Your task to perform on an android device: Add macbook pro 13 inch to the cart on amazon Image 0: 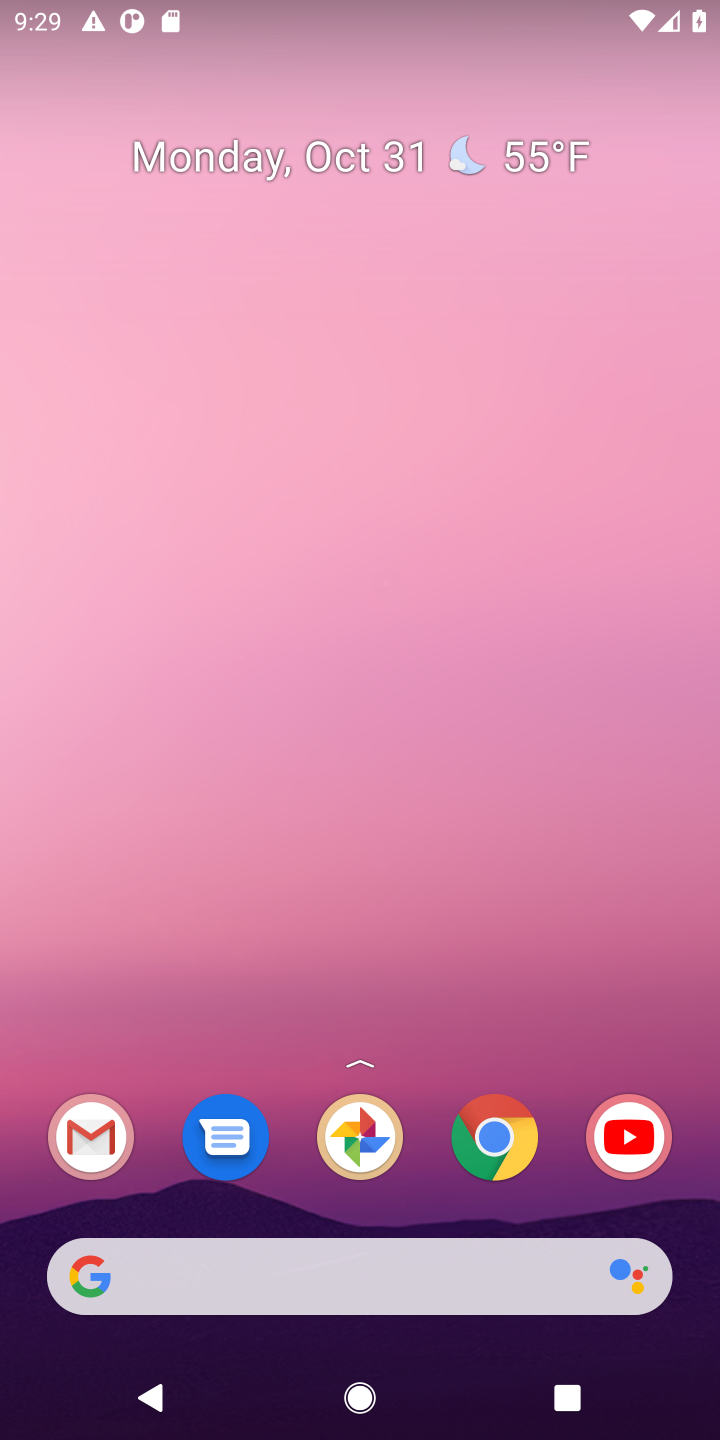
Step 0: click (521, 1139)
Your task to perform on an android device: Add macbook pro 13 inch to the cart on amazon Image 1: 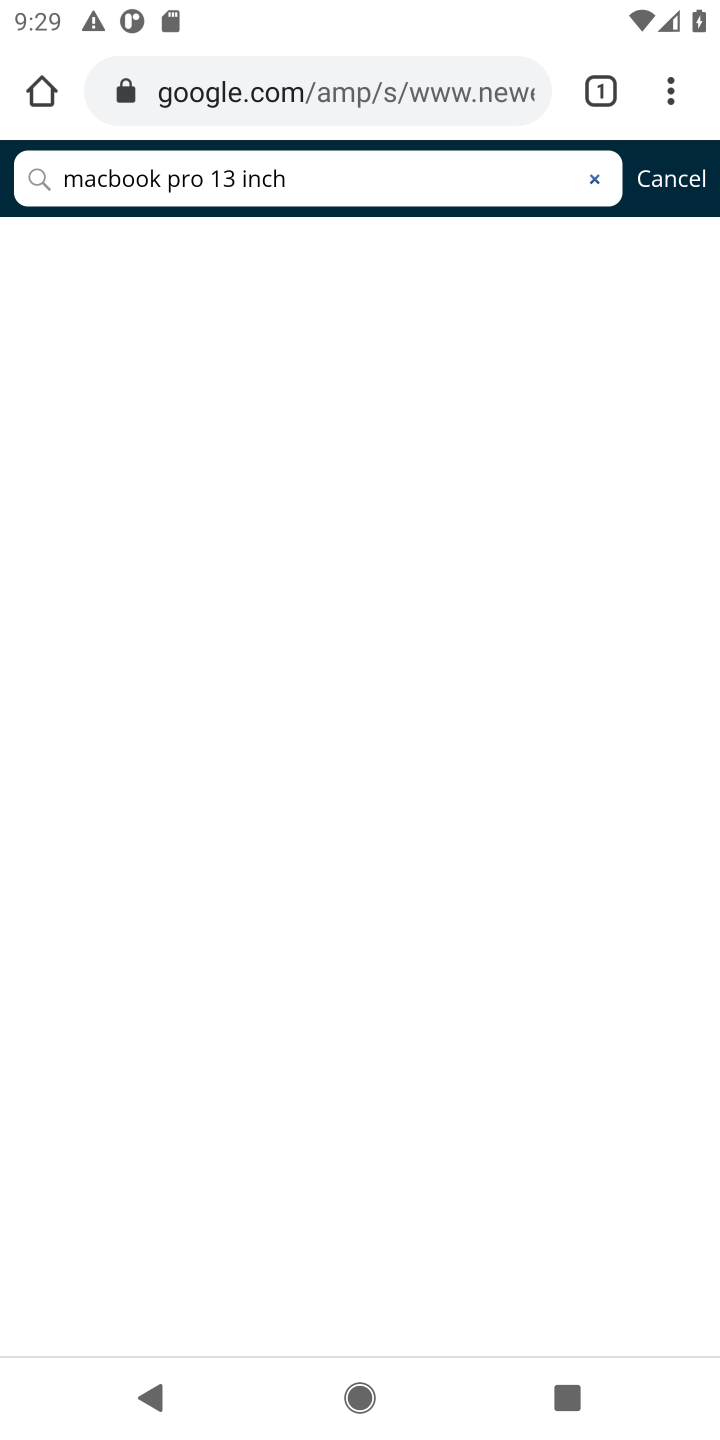
Step 1: click (308, 186)
Your task to perform on an android device: Add macbook pro 13 inch to the cart on amazon Image 2: 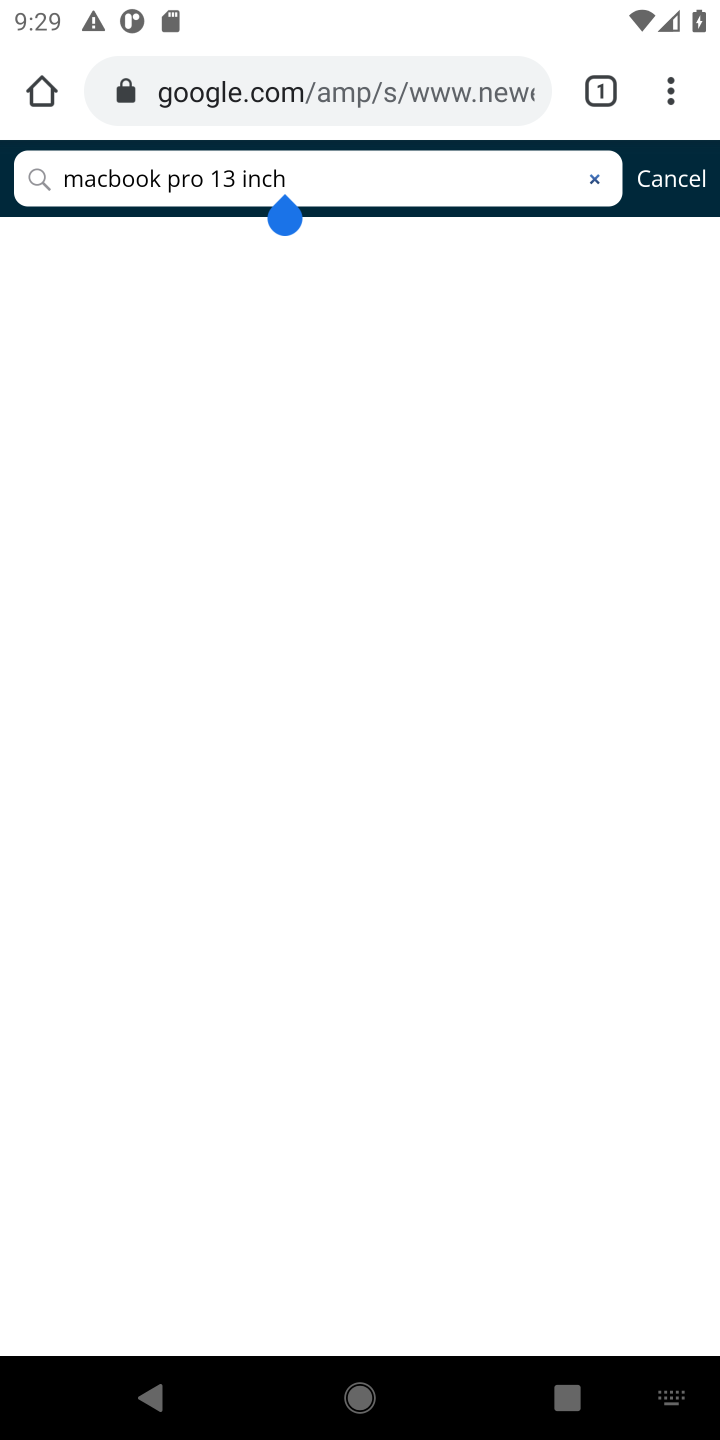
Step 2: click (317, 112)
Your task to perform on an android device: Add macbook pro 13 inch to the cart on amazon Image 3: 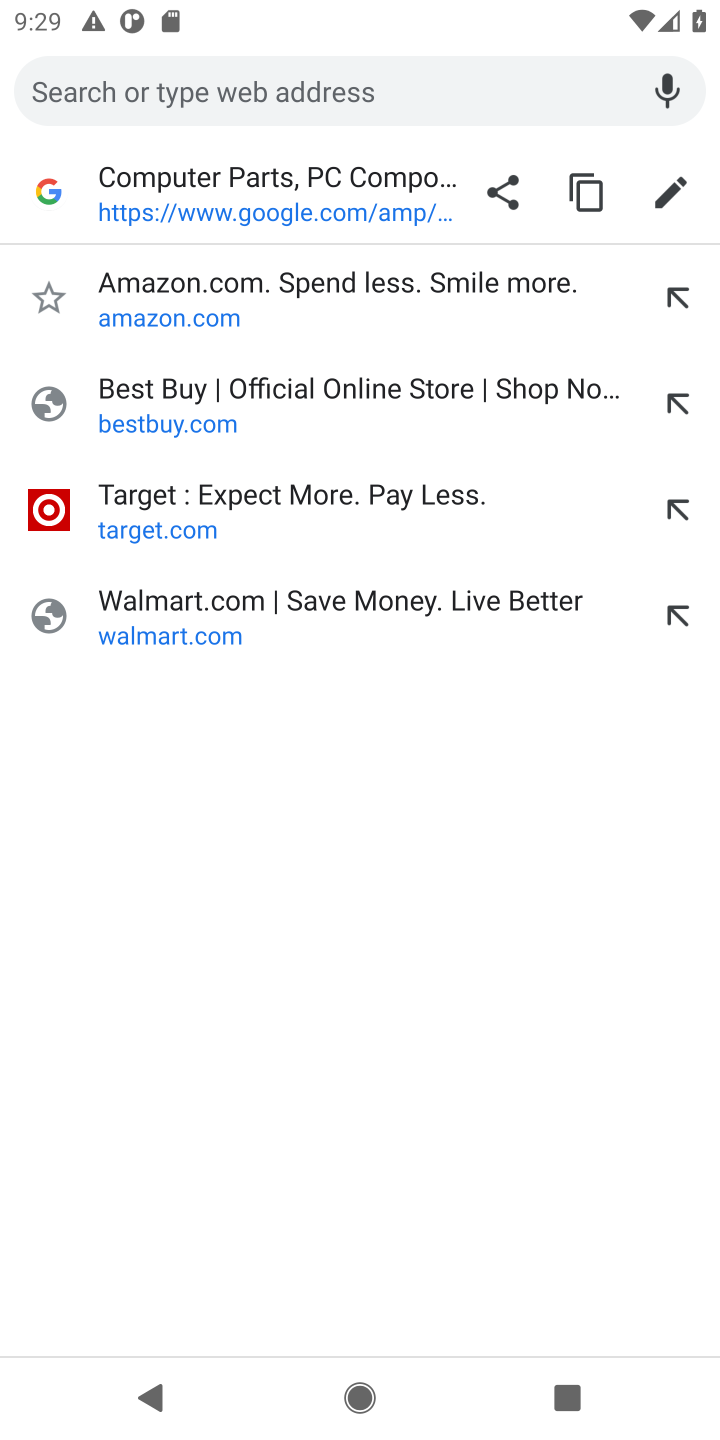
Step 3: click (232, 293)
Your task to perform on an android device: Add macbook pro 13 inch to the cart on amazon Image 4: 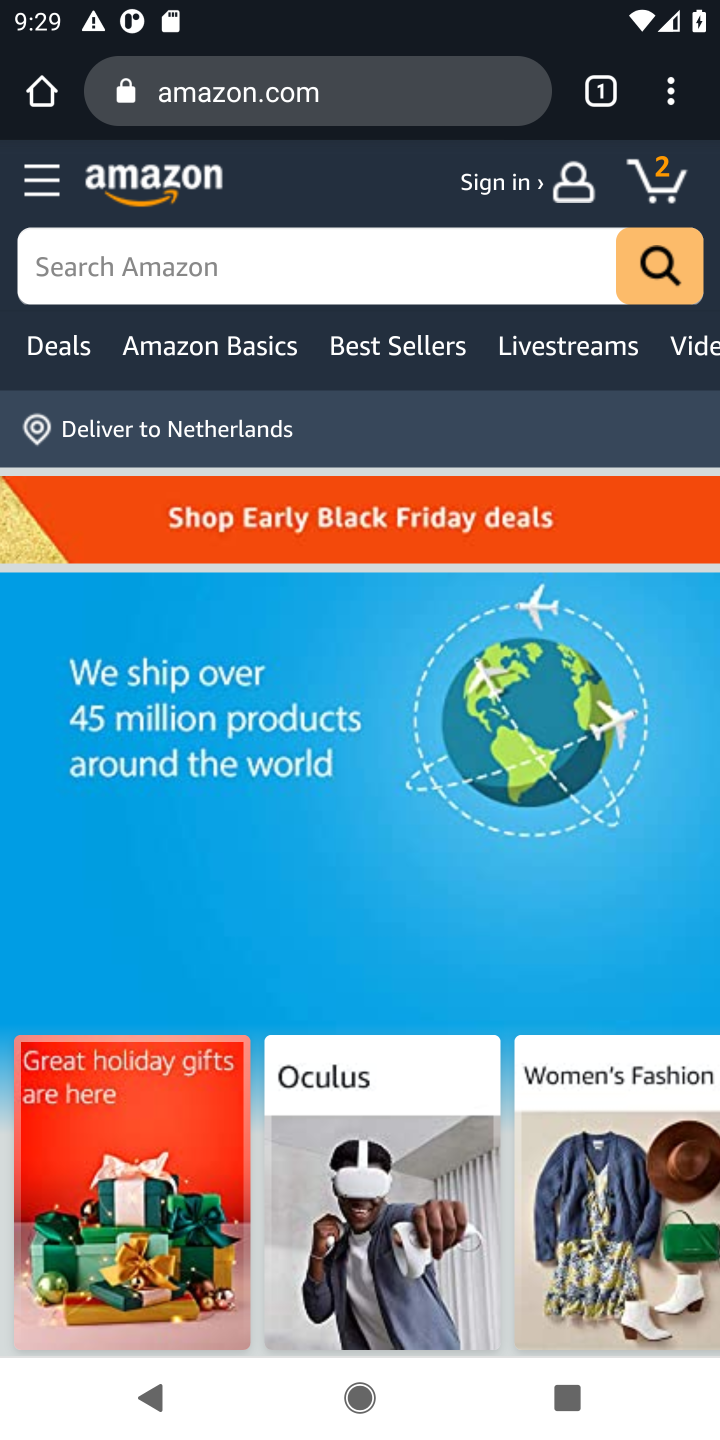
Step 4: click (232, 293)
Your task to perform on an android device: Add macbook pro 13 inch to the cart on amazon Image 5: 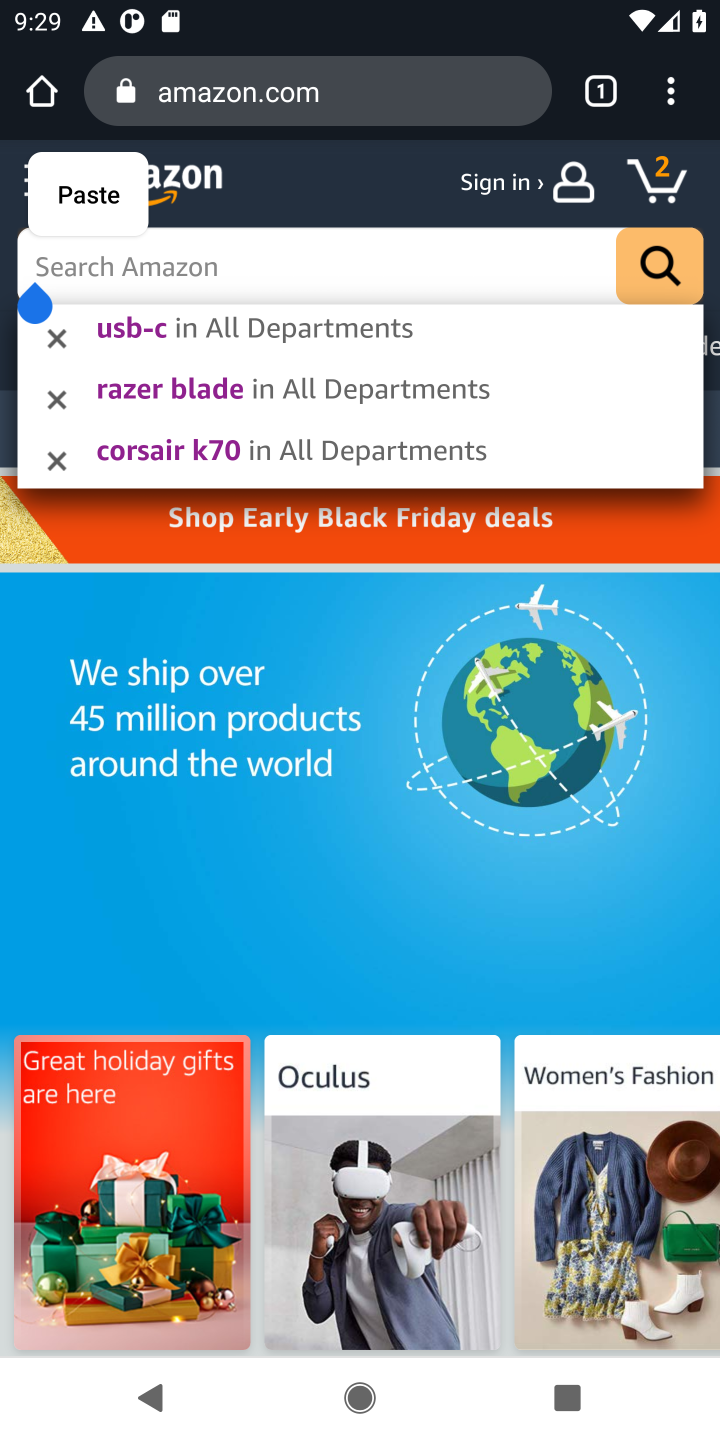
Step 5: type "macbook pro 13 inch"
Your task to perform on an android device: Add macbook pro 13 inch to the cart on amazon Image 6: 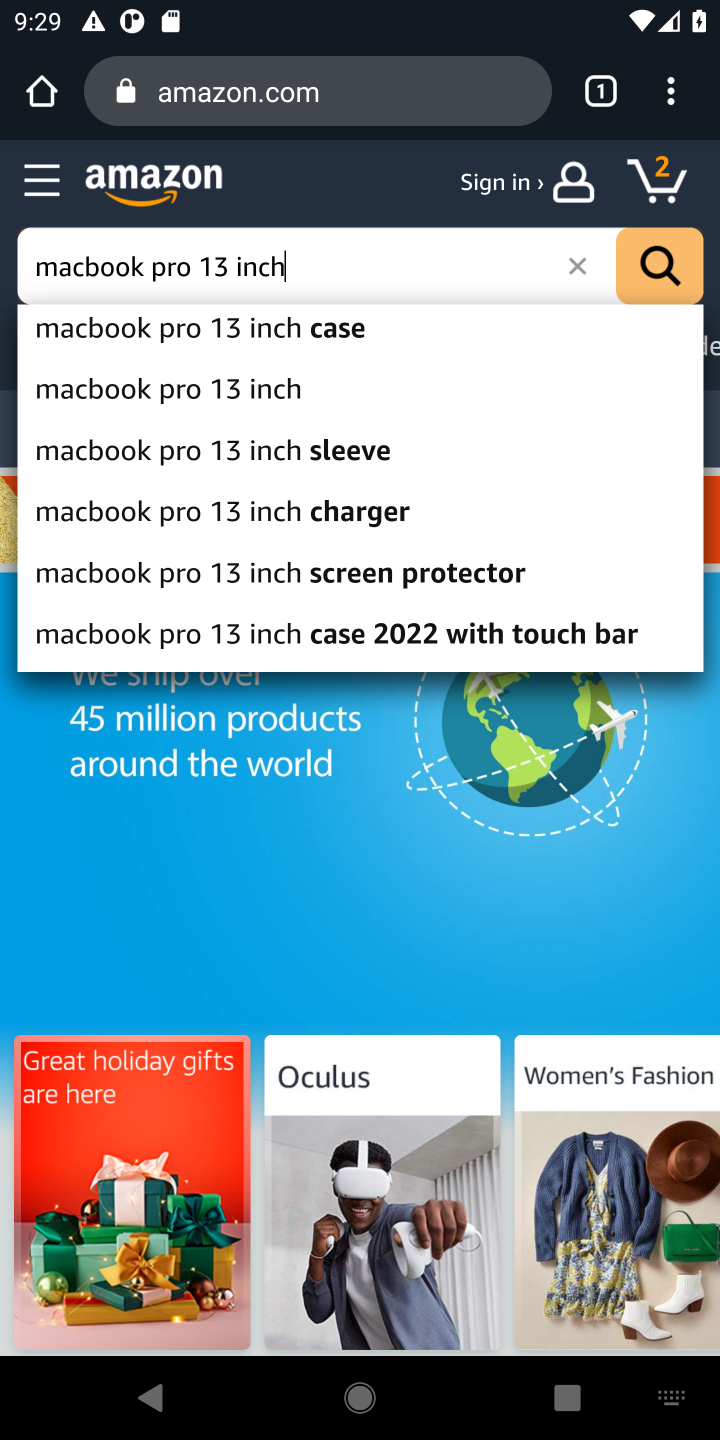
Step 6: click (165, 386)
Your task to perform on an android device: Add macbook pro 13 inch to the cart on amazon Image 7: 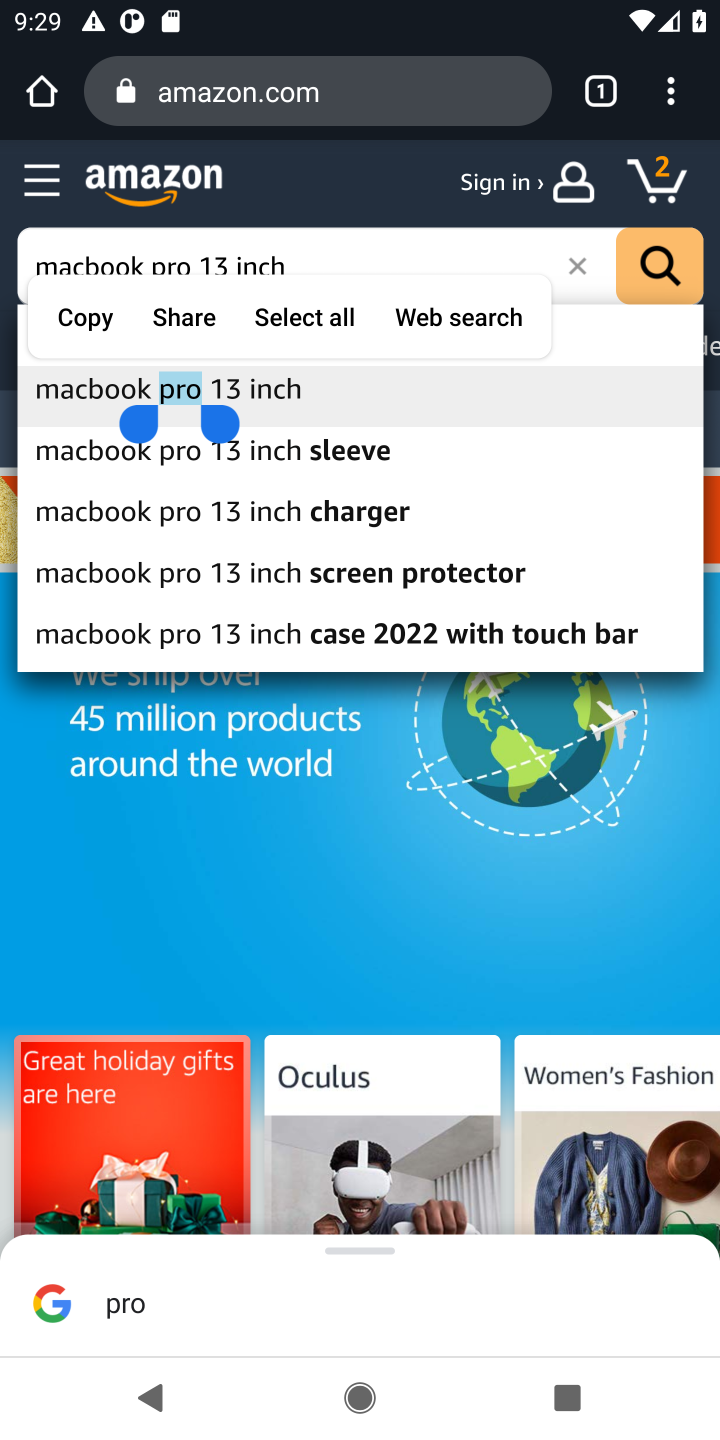
Step 7: click (249, 405)
Your task to perform on an android device: Add macbook pro 13 inch to the cart on amazon Image 8: 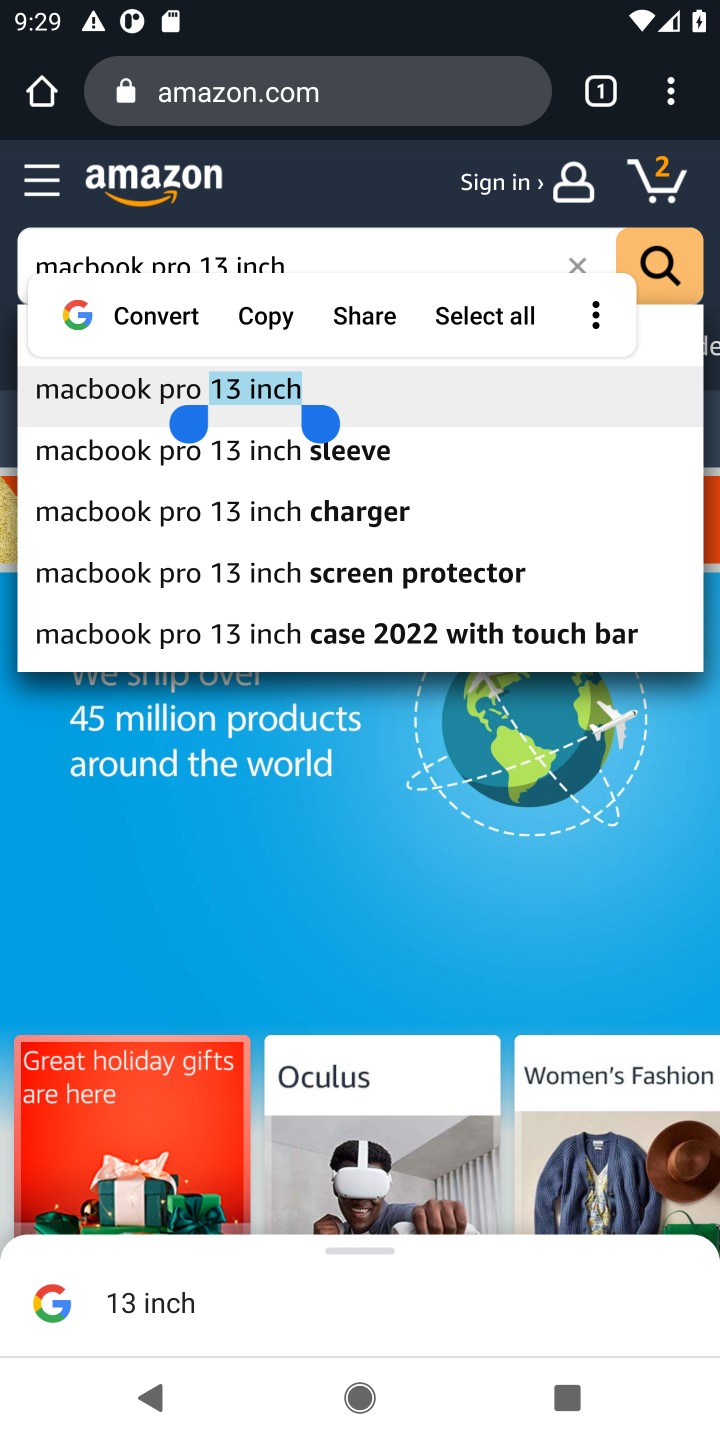
Step 8: click (111, 403)
Your task to perform on an android device: Add macbook pro 13 inch to the cart on amazon Image 9: 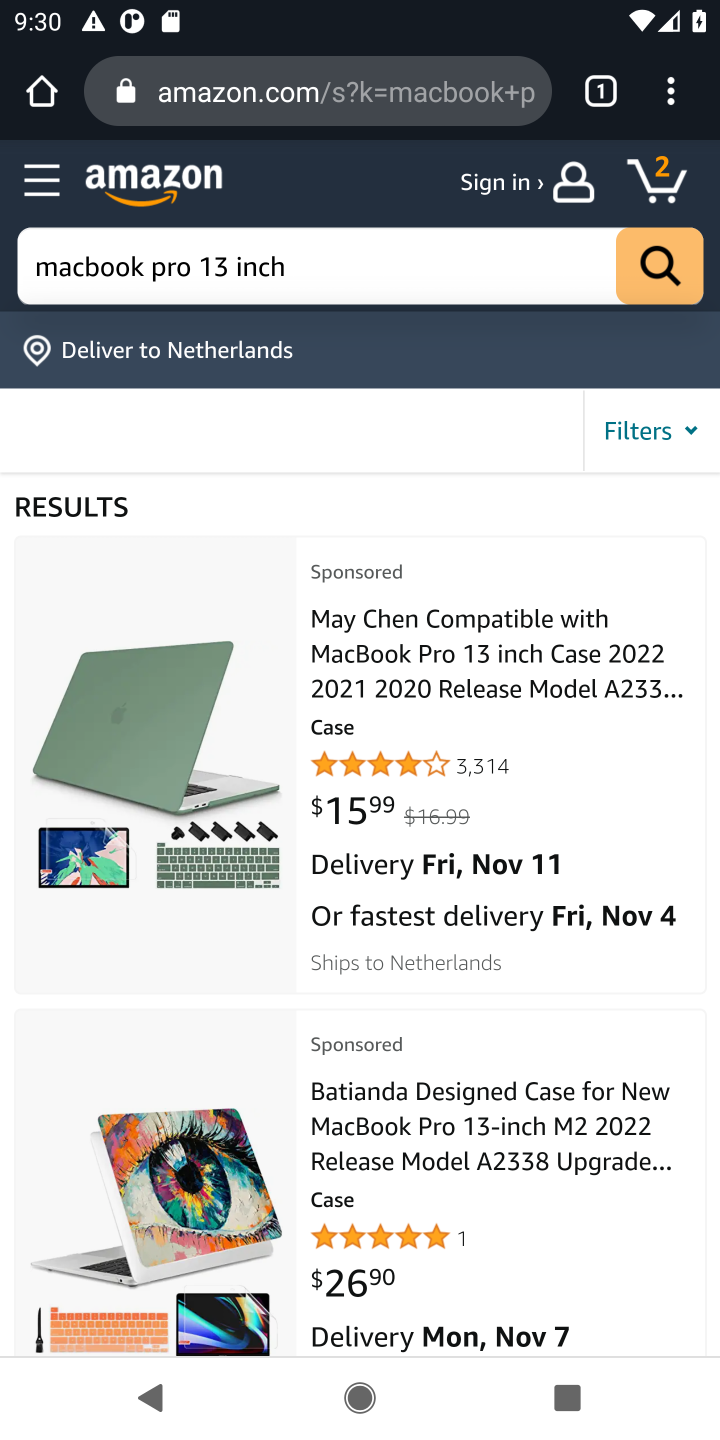
Step 9: click (210, 777)
Your task to perform on an android device: Add macbook pro 13 inch to the cart on amazon Image 10: 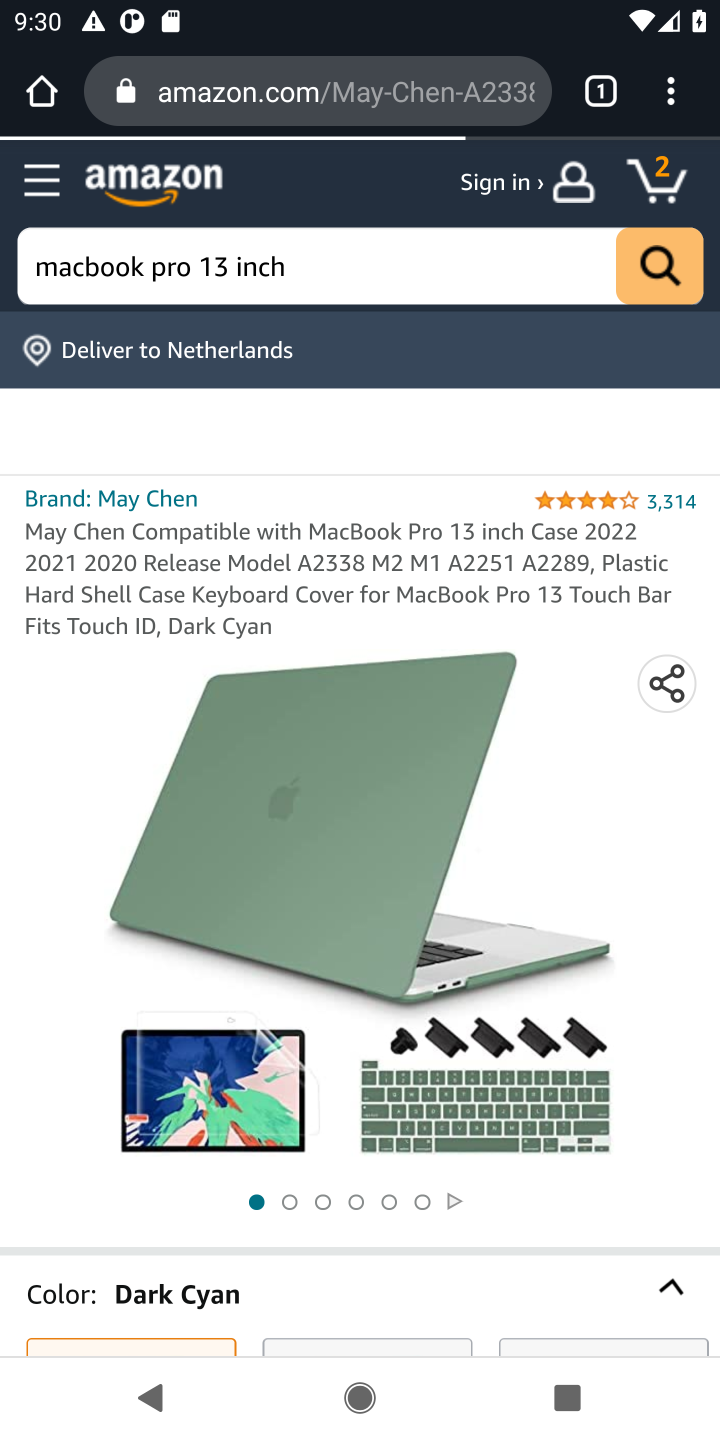
Step 10: drag from (346, 1032) to (364, 474)
Your task to perform on an android device: Add macbook pro 13 inch to the cart on amazon Image 11: 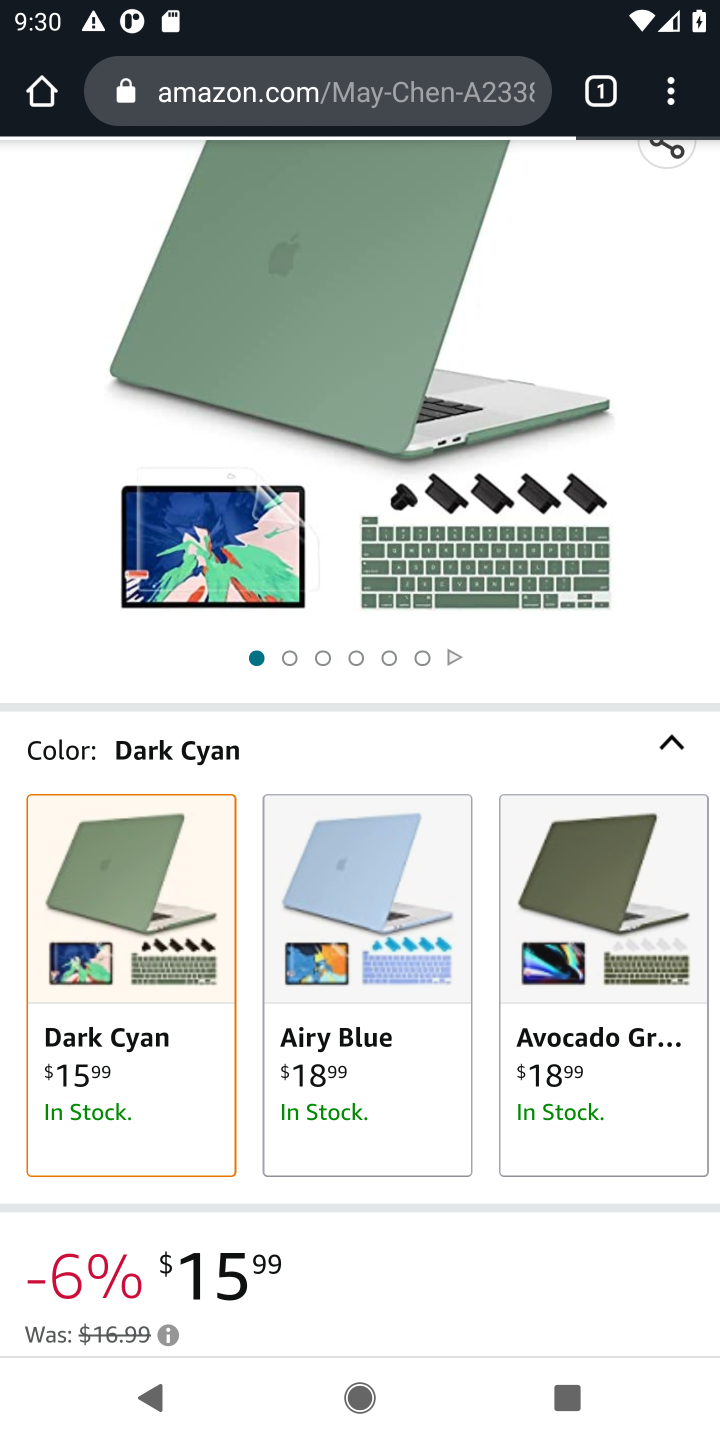
Step 11: drag from (313, 956) to (329, 481)
Your task to perform on an android device: Add macbook pro 13 inch to the cart on amazon Image 12: 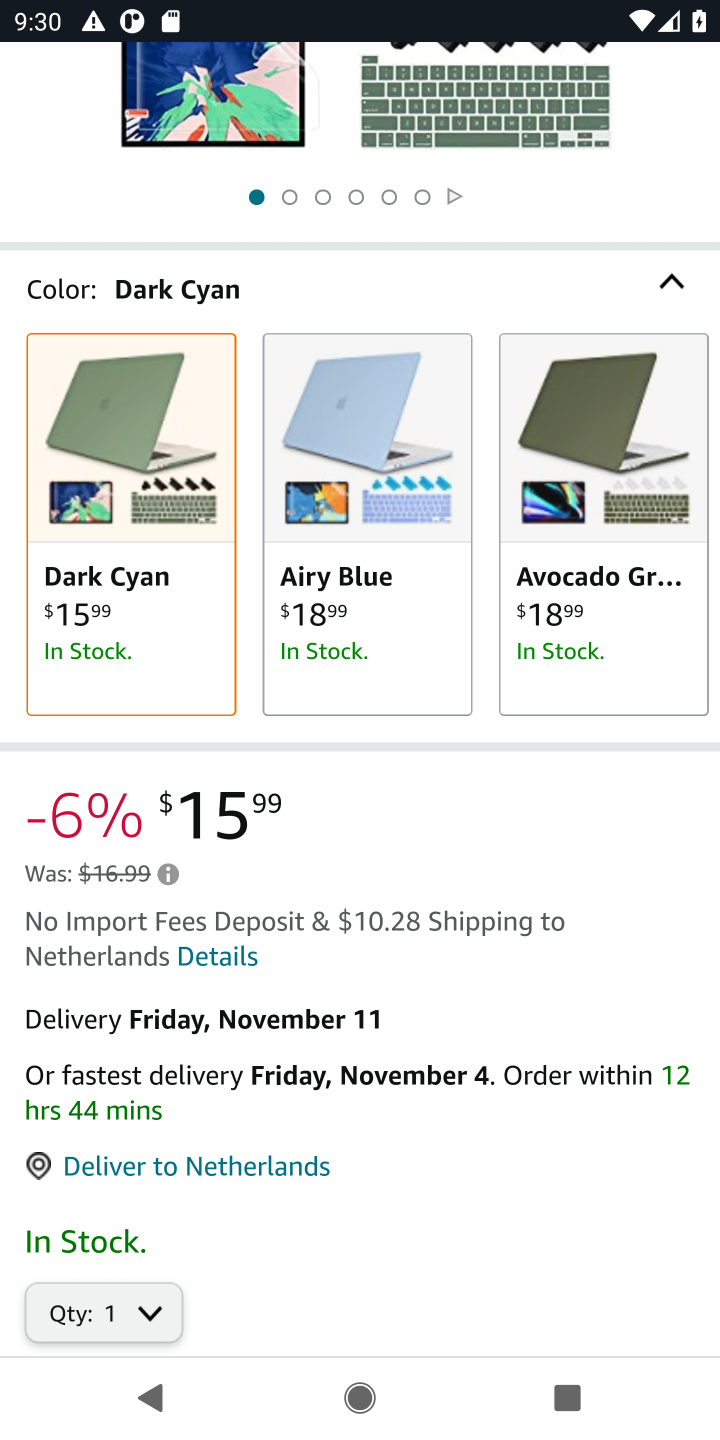
Step 12: drag from (315, 967) to (314, 359)
Your task to perform on an android device: Add macbook pro 13 inch to the cart on amazon Image 13: 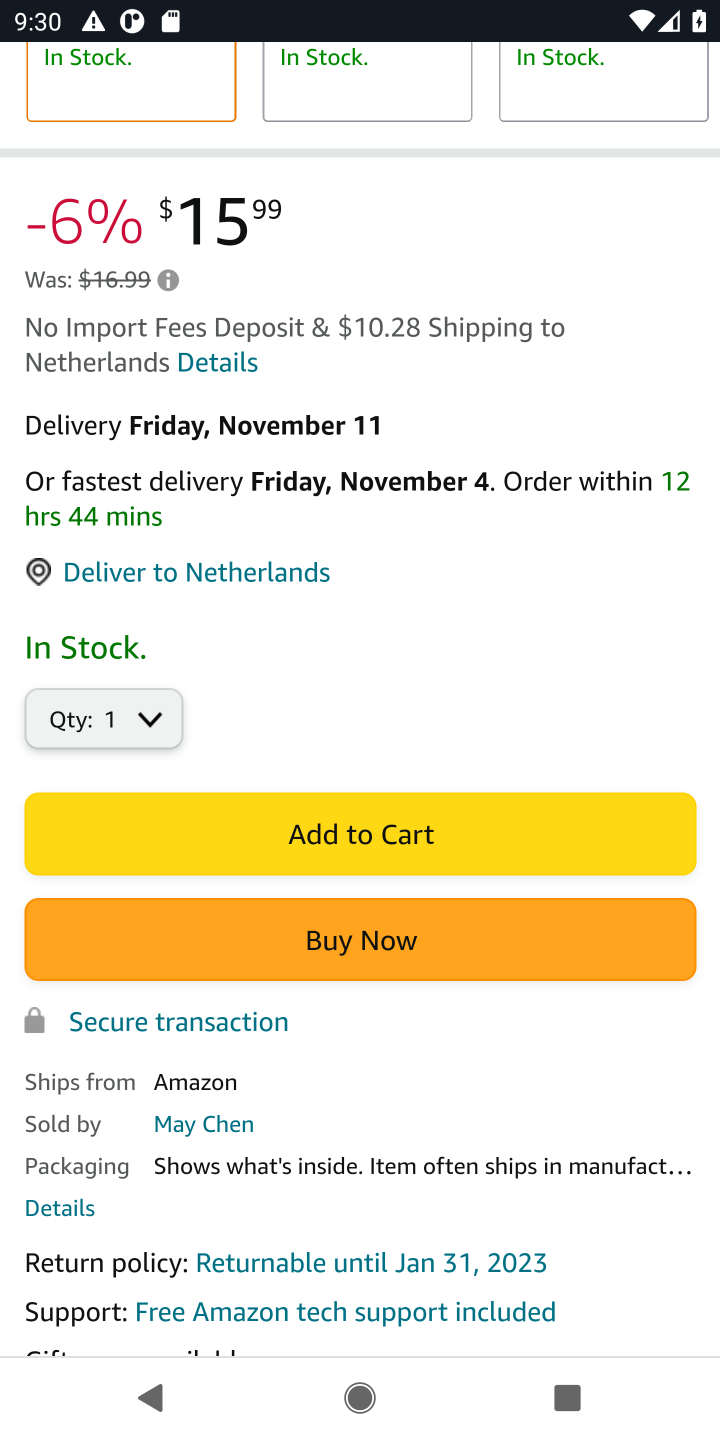
Step 13: click (335, 856)
Your task to perform on an android device: Add macbook pro 13 inch to the cart on amazon Image 14: 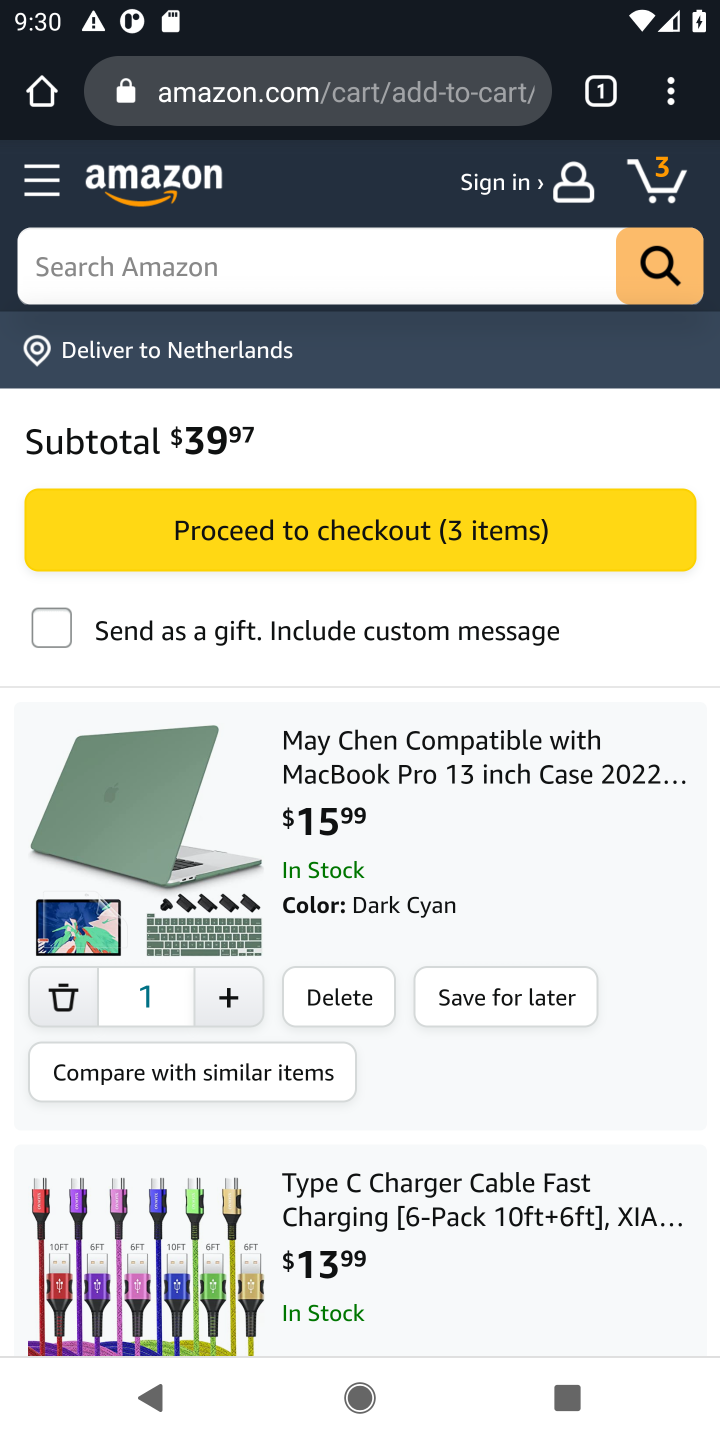
Step 14: task complete